Your task to perform on an android device: Open Wikipedia Image 0: 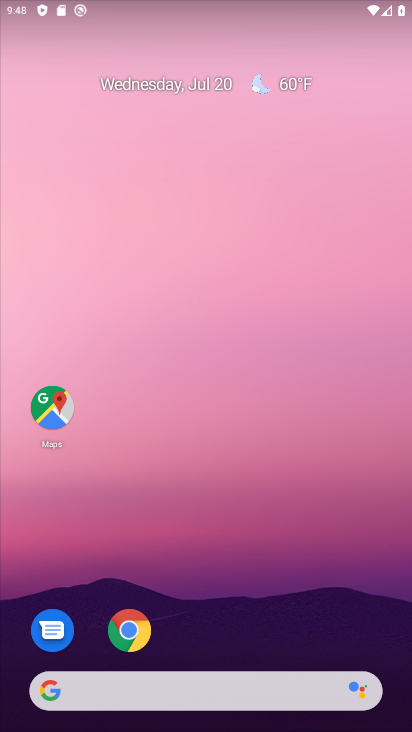
Step 0: click (133, 636)
Your task to perform on an android device: Open Wikipedia Image 1: 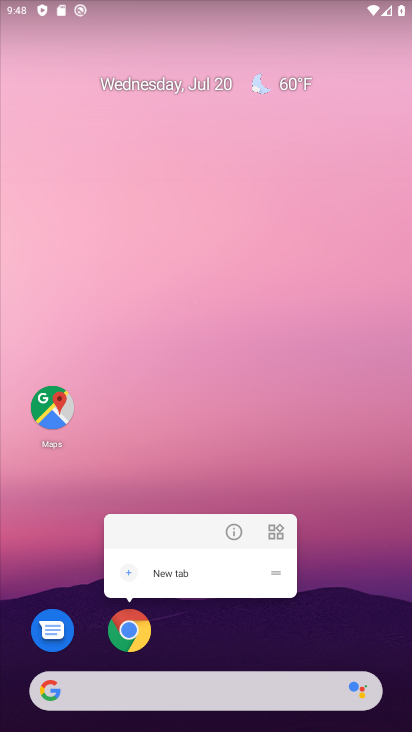
Step 1: click (132, 633)
Your task to perform on an android device: Open Wikipedia Image 2: 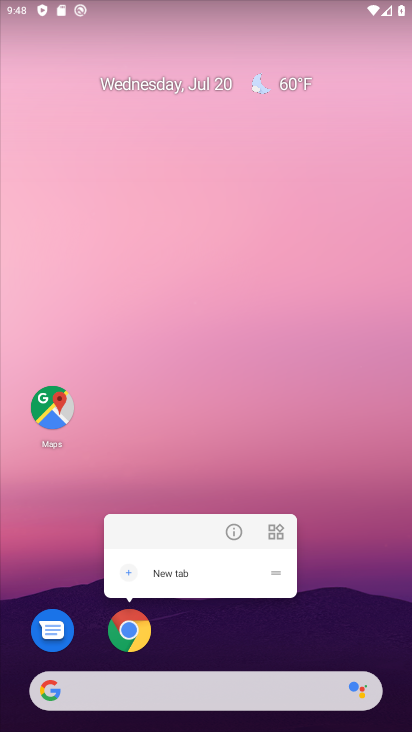
Step 2: click (132, 633)
Your task to perform on an android device: Open Wikipedia Image 3: 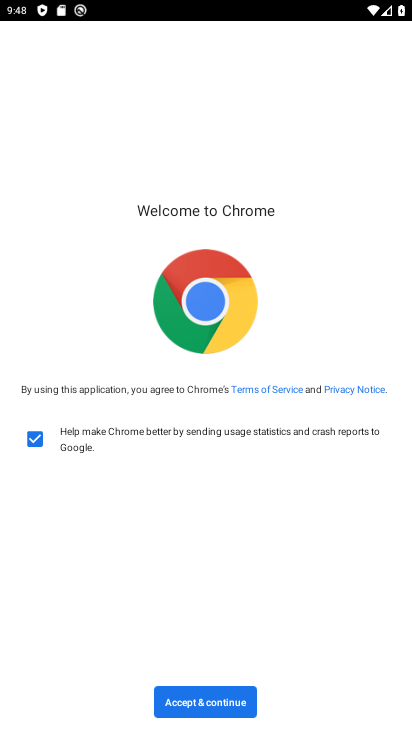
Step 3: click (182, 706)
Your task to perform on an android device: Open Wikipedia Image 4: 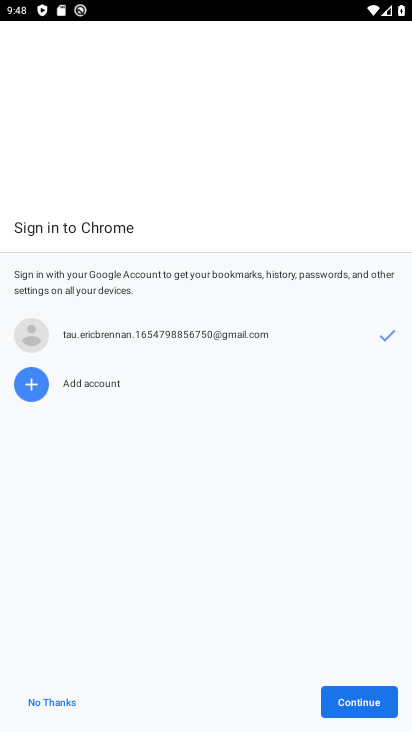
Step 4: click (372, 700)
Your task to perform on an android device: Open Wikipedia Image 5: 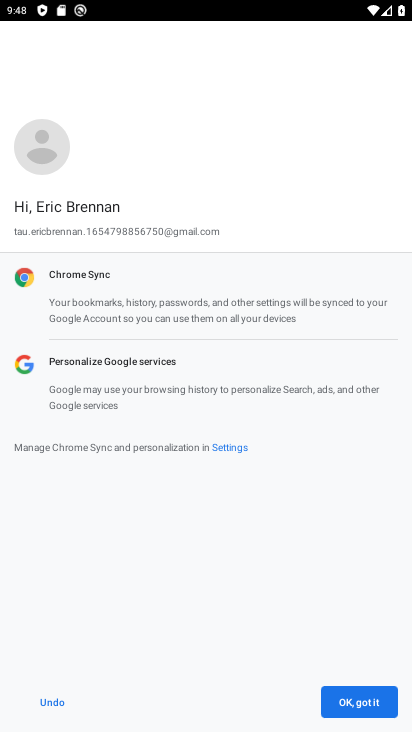
Step 5: click (372, 701)
Your task to perform on an android device: Open Wikipedia Image 6: 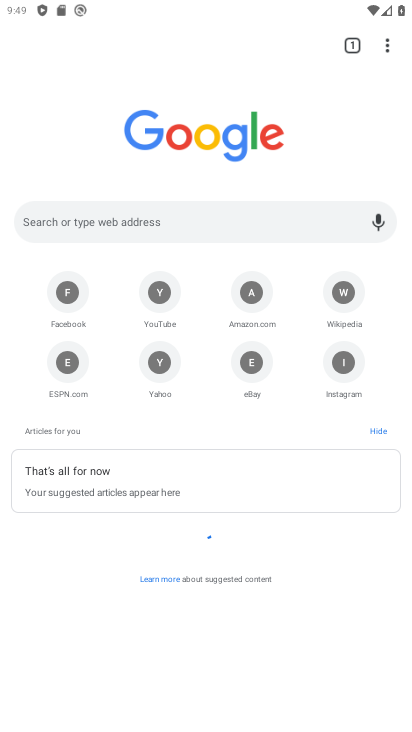
Step 6: click (342, 285)
Your task to perform on an android device: Open Wikipedia Image 7: 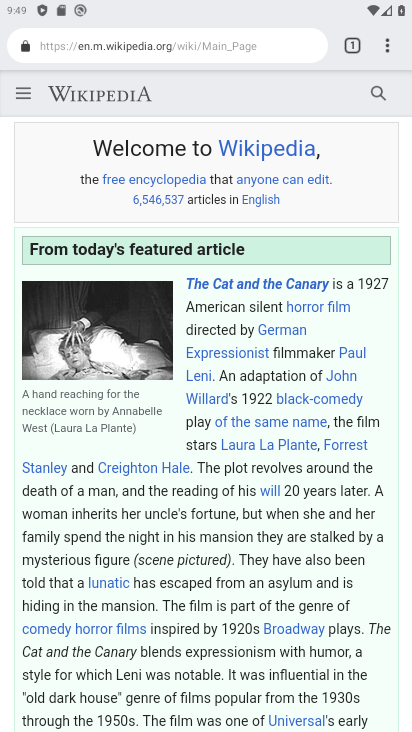
Step 7: task complete